Your task to perform on an android device: Open wifi settings Image 0: 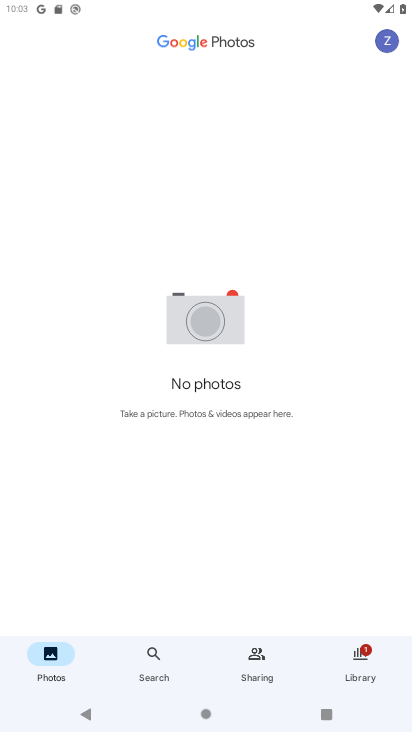
Step 0: press home button
Your task to perform on an android device: Open wifi settings Image 1: 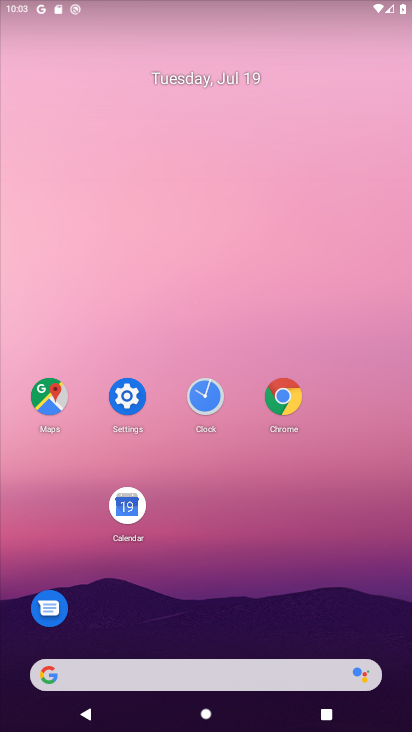
Step 1: drag from (401, 682) to (328, 86)
Your task to perform on an android device: Open wifi settings Image 2: 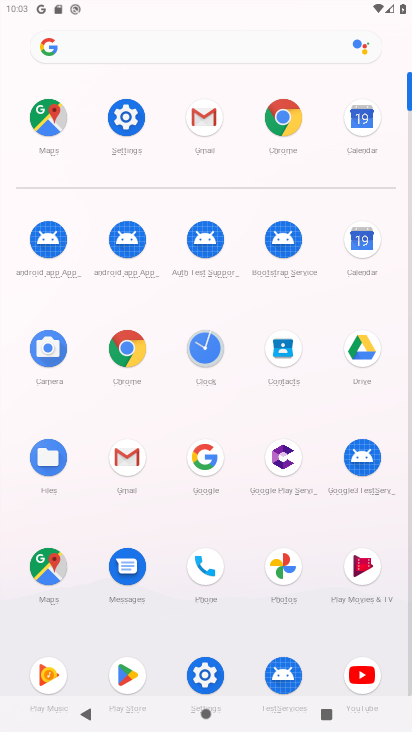
Step 2: click (139, 124)
Your task to perform on an android device: Open wifi settings Image 3: 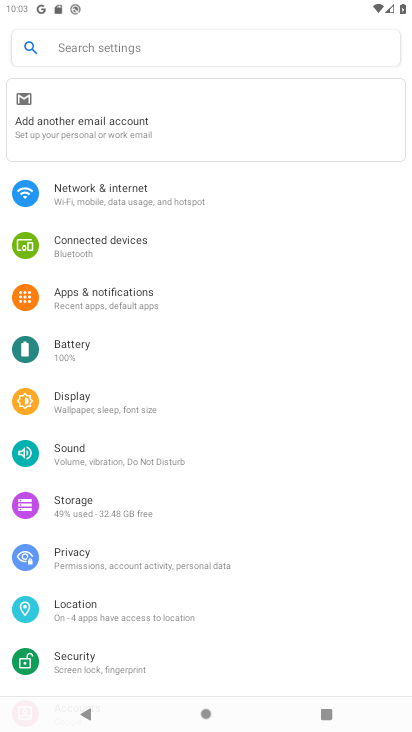
Step 3: click (127, 205)
Your task to perform on an android device: Open wifi settings Image 4: 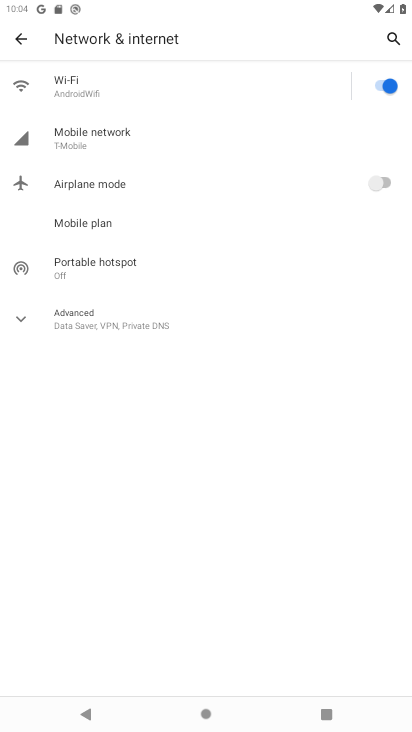
Step 4: click (119, 94)
Your task to perform on an android device: Open wifi settings Image 5: 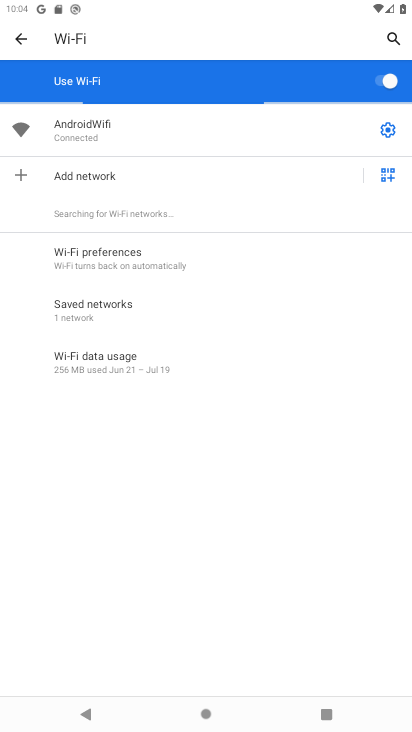
Step 5: click (385, 134)
Your task to perform on an android device: Open wifi settings Image 6: 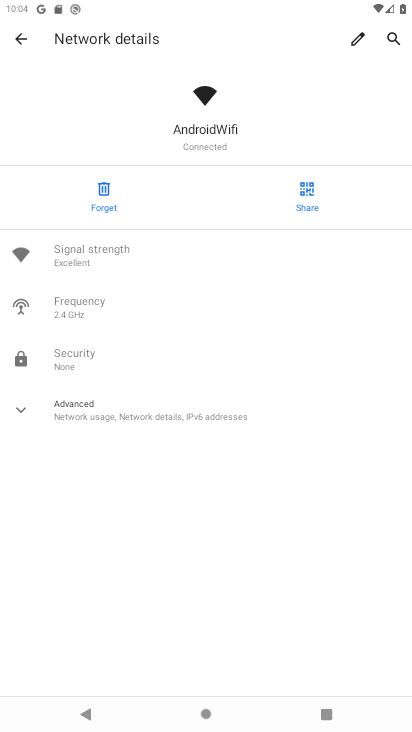
Step 6: task complete